Your task to perform on an android device: How do I get to the nearest Best Buy? Image 0: 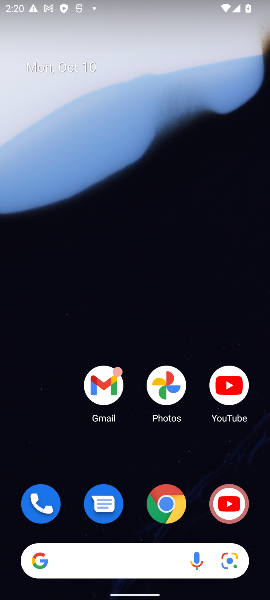
Step 0: task complete